Your task to perform on an android device: Open Youtube and go to the subscriptions tab Image 0: 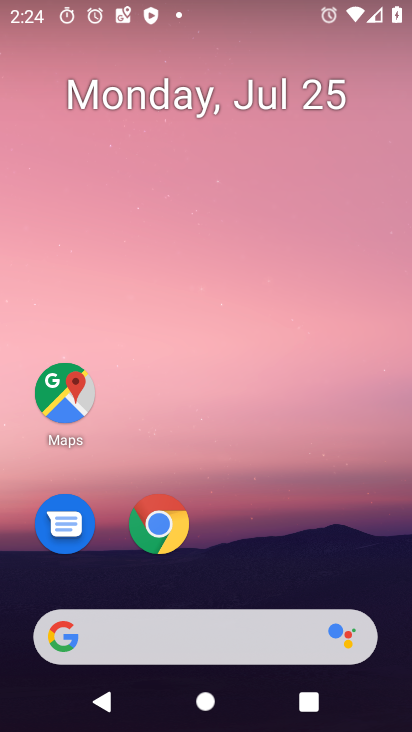
Step 0: press home button
Your task to perform on an android device: Open Youtube and go to the subscriptions tab Image 1: 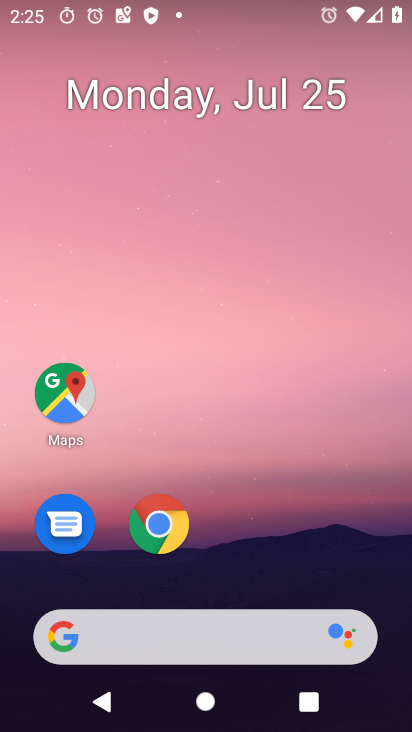
Step 1: drag from (262, 590) to (224, 119)
Your task to perform on an android device: Open Youtube and go to the subscriptions tab Image 2: 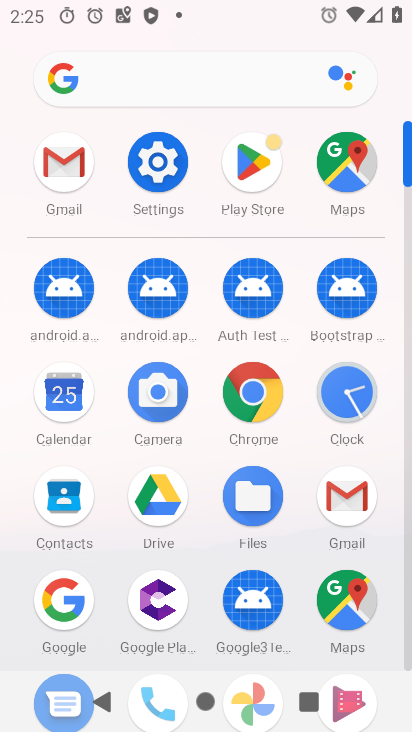
Step 2: drag from (298, 531) to (386, 0)
Your task to perform on an android device: Open Youtube and go to the subscriptions tab Image 3: 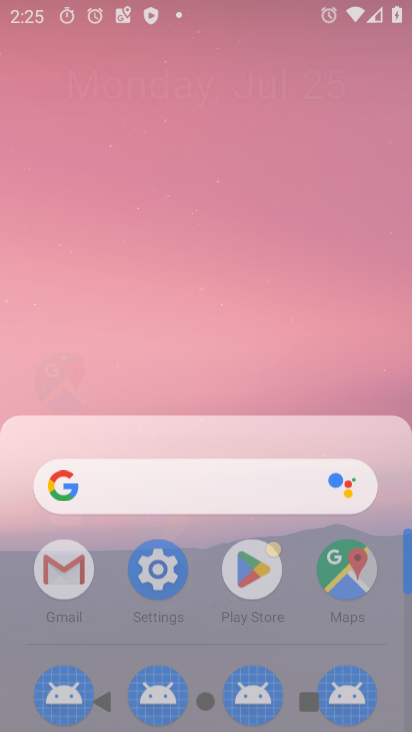
Step 3: drag from (283, 458) to (351, 89)
Your task to perform on an android device: Open Youtube and go to the subscriptions tab Image 4: 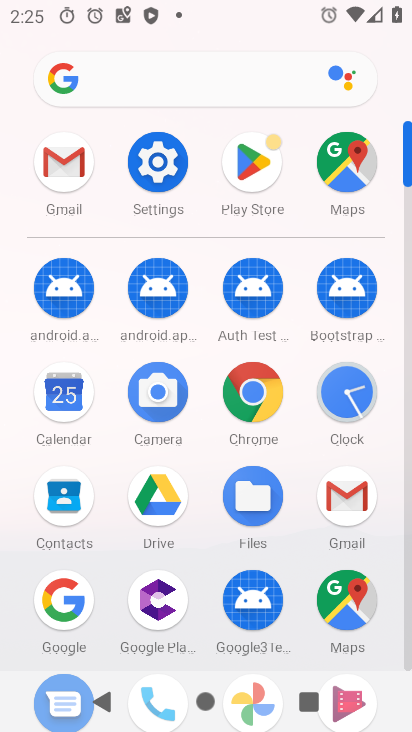
Step 4: drag from (279, 589) to (310, 64)
Your task to perform on an android device: Open Youtube and go to the subscriptions tab Image 5: 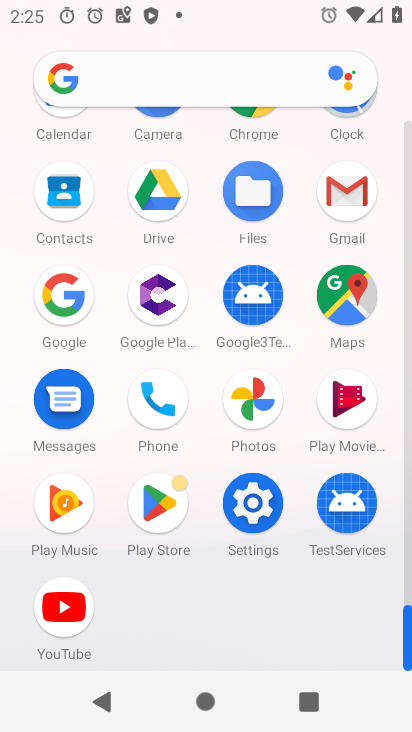
Step 5: click (78, 604)
Your task to perform on an android device: Open Youtube and go to the subscriptions tab Image 6: 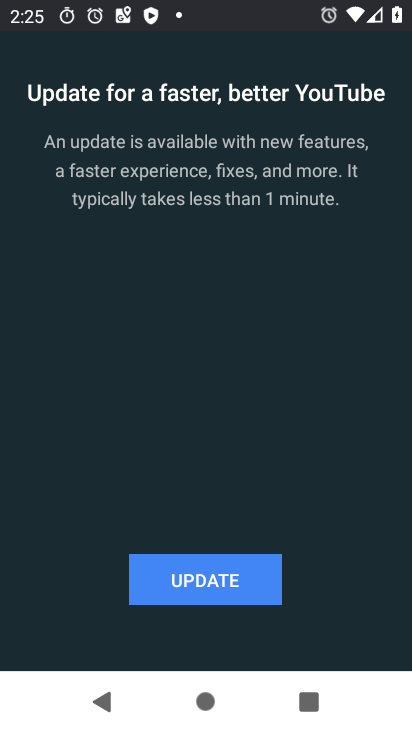
Step 6: click (164, 574)
Your task to perform on an android device: Open Youtube and go to the subscriptions tab Image 7: 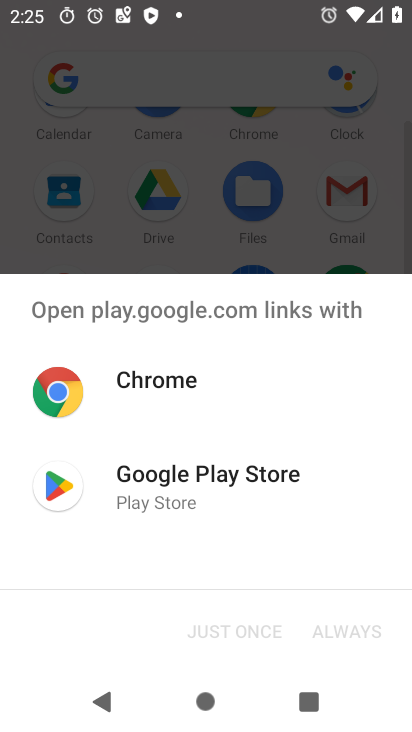
Step 7: click (148, 480)
Your task to perform on an android device: Open Youtube and go to the subscriptions tab Image 8: 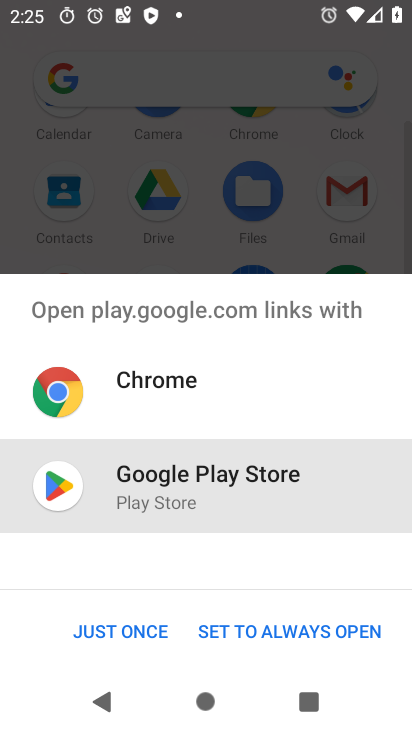
Step 8: click (103, 633)
Your task to perform on an android device: Open Youtube and go to the subscriptions tab Image 9: 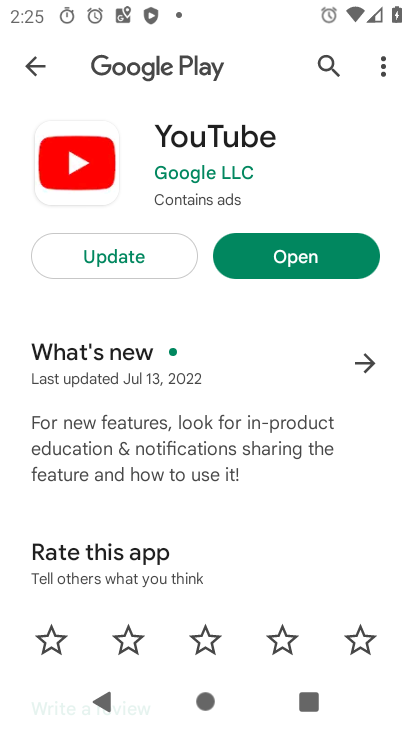
Step 9: click (116, 249)
Your task to perform on an android device: Open Youtube and go to the subscriptions tab Image 10: 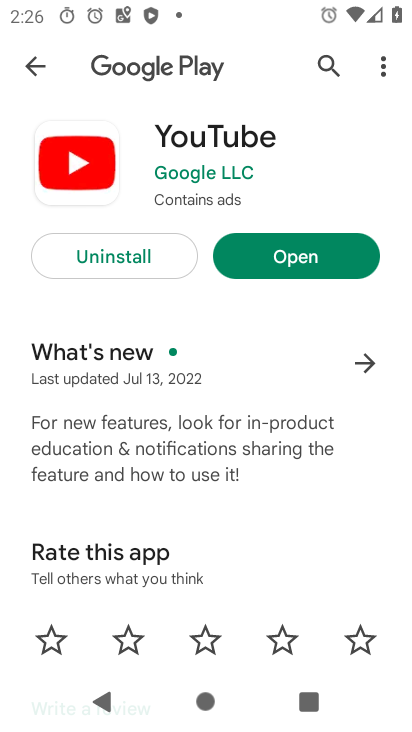
Step 10: click (272, 251)
Your task to perform on an android device: Open Youtube and go to the subscriptions tab Image 11: 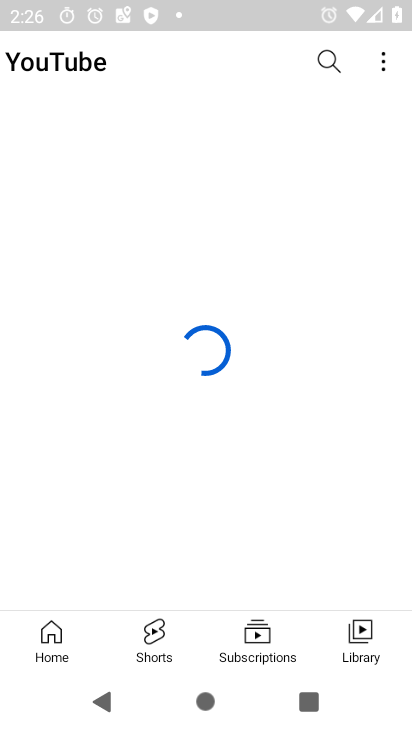
Step 11: click (260, 634)
Your task to perform on an android device: Open Youtube and go to the subscriptions tab Image 12: 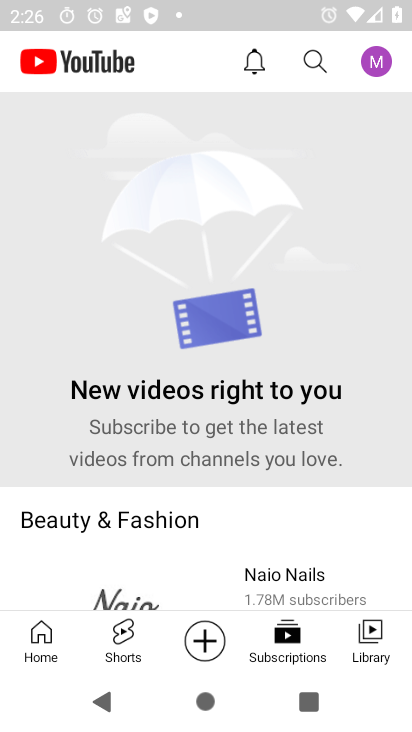
Step 12: task complete